Your task to perform on an android device: Open Youtube and go to the subscriptions tab Image 0: 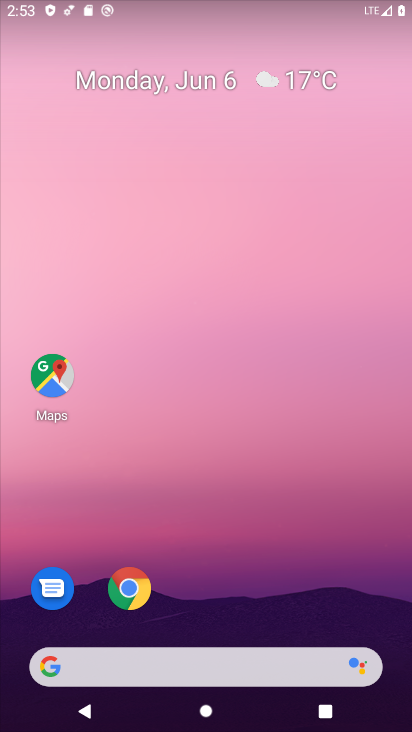
Step 0: drag from (158, 665) to (161, 82)
Your task to perform on an android device: Open Youtube and go to the subscriptions tab Image 1: 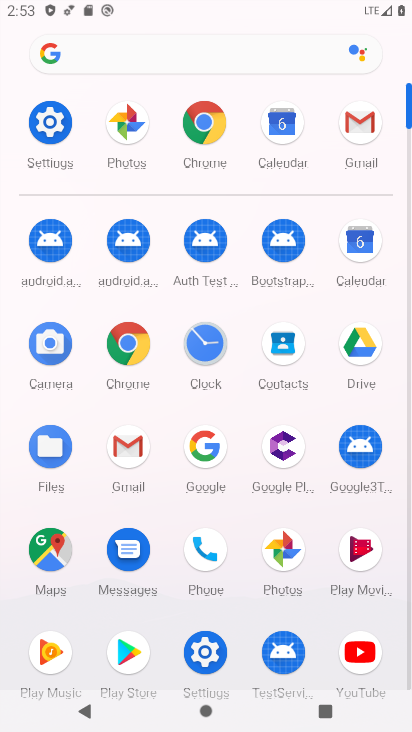
Step 1: click (346, 645)
Your task to perform on an android device: Open Youtube and go to the subscriptions tab Image 2: 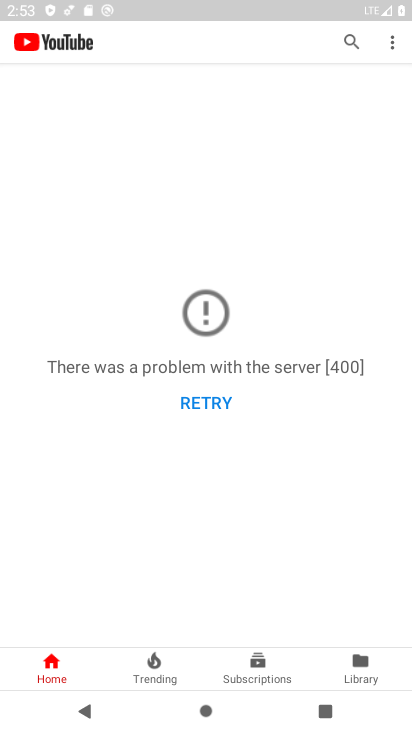
Step 2: click (256, 659)
Your task to perform on an android device: Open Youtube and go to the subscriptions tab Image 3: 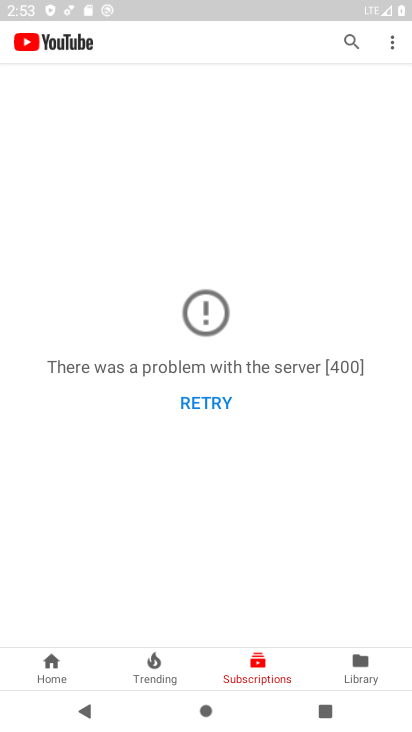
Step 3: task complete